Your task to perform on an android device: Go to location settings Image 0: 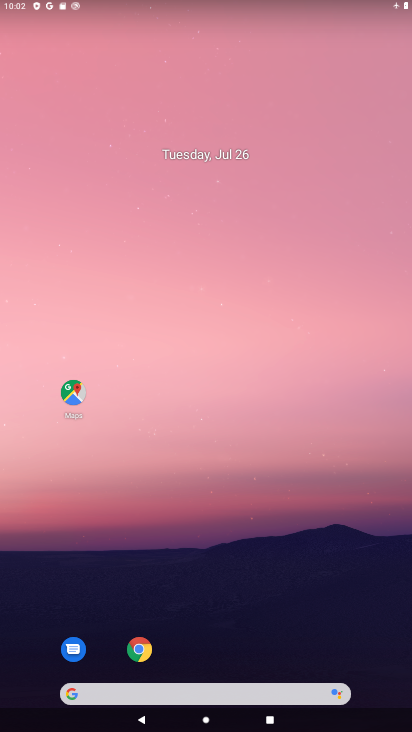
Step 0: drag from (262, 663) to (290, 131)
Your task to perform on an android device: Go to location settings Image 1: 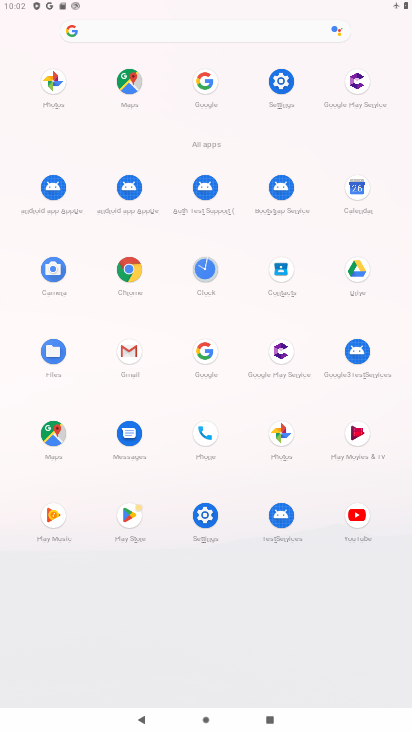
Step 1: click (278, 84)
Your task to perform on an android device: Go to location settings Image 2: 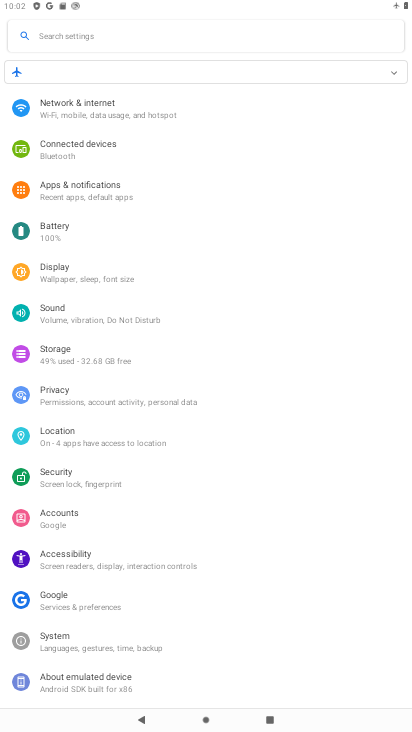
Step 2: click (57, 432)
Your task to perform on an android device: Go to location settings Image 3: 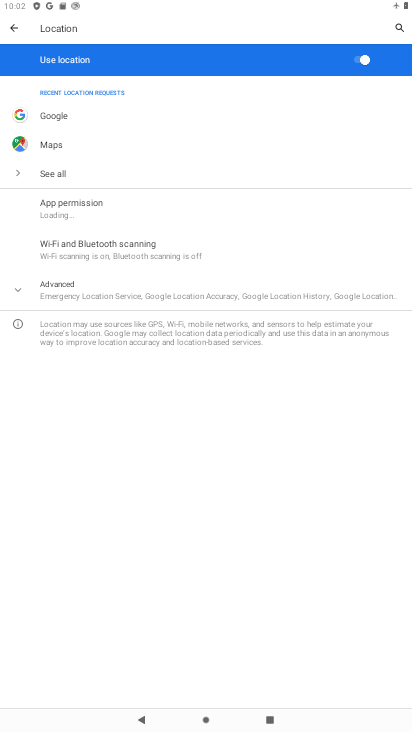
Step 3: click (62, 288)
Your task to perform on an android device: Go to location settings Image 4: 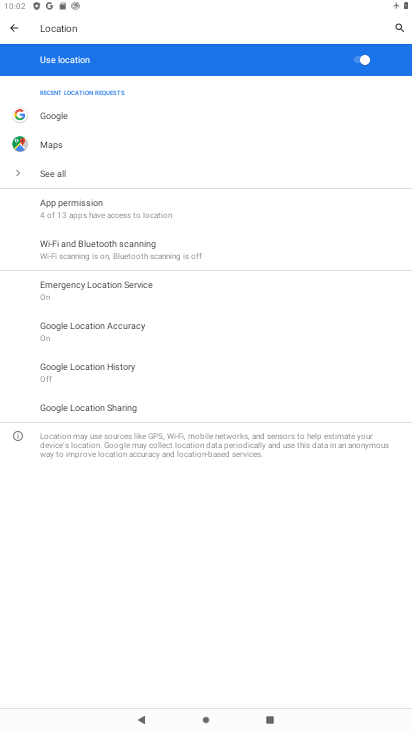
Step 4: task complete